Your task to perform on an android device: see sites visited before in the chrome app Image 0: 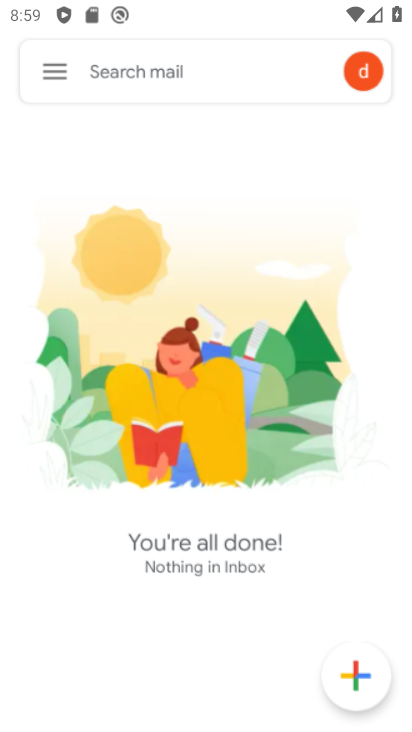
Step 0: drag from (193, 622) to (209, 124)
Your task to perform on an android device: see sites visited before in the chrome app Image 1: 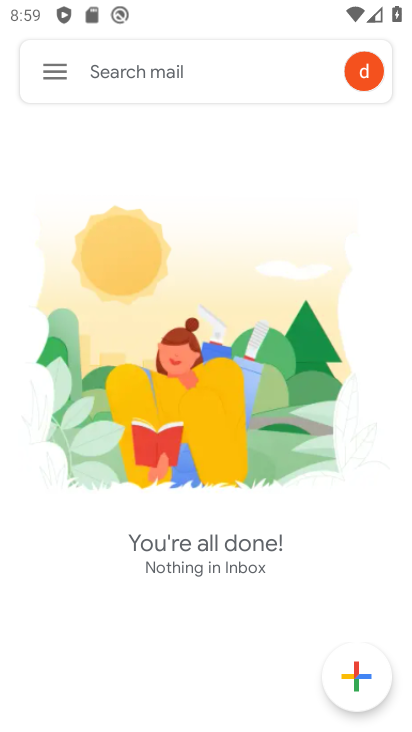
Step 1: press home button
Your task to perform on an android device: see sites visited before in the chrome app Image 2: 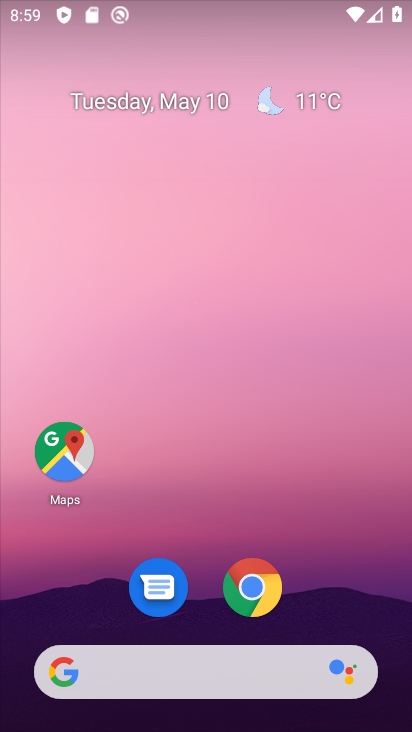
Step 2: drag from (205, 615) to (197, 62)
Your task to perform on an android device: see sites visited before in the chrome app Image 3: 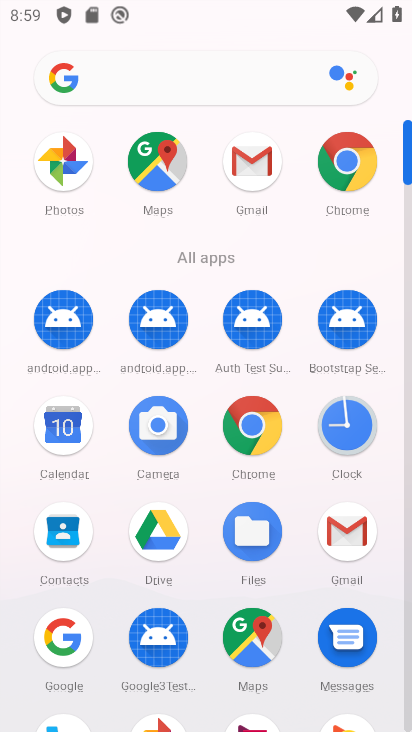
Step 3: drag from (208, 599) to (245, 95)
Your task to perform on an android device: see sites visited before in the chrome app Image 4: 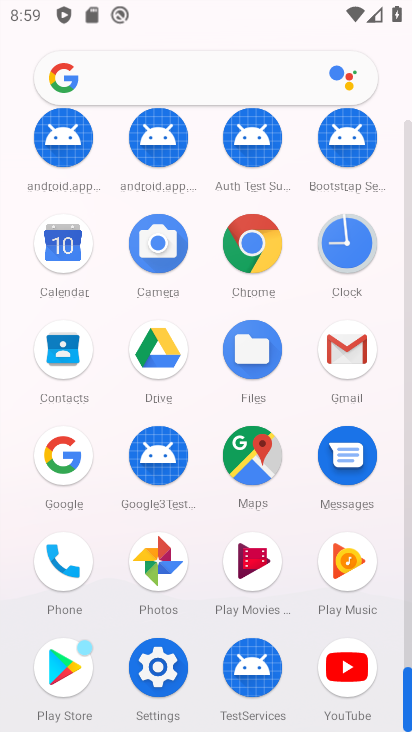
Step 4: click (254, 561)
Your task to perform on an android device: see sites visited before in the chrome app Image 5: 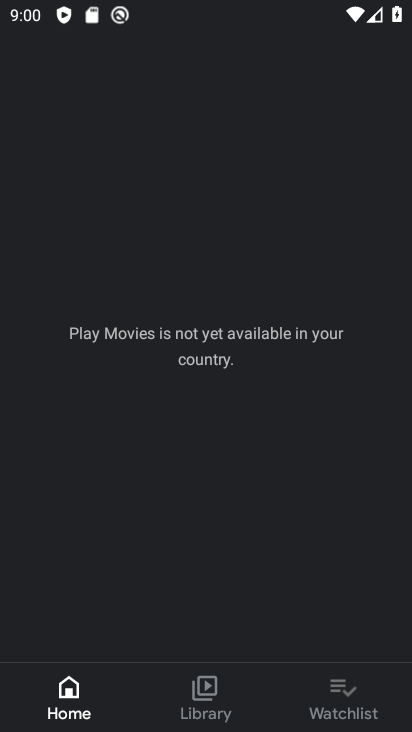
Step 5: click (359, 712)
Your task to perform on an android device: see sites visited before in the chrome app Image 6: 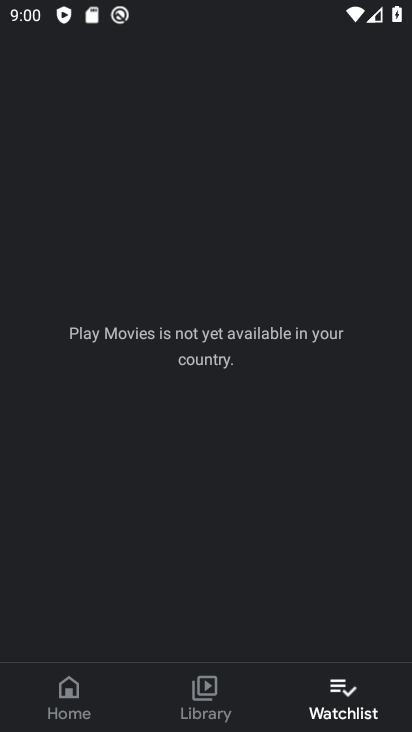
Step 6: task complete